Your task to perform on an android device: see creations saved in the google photos Image 0: 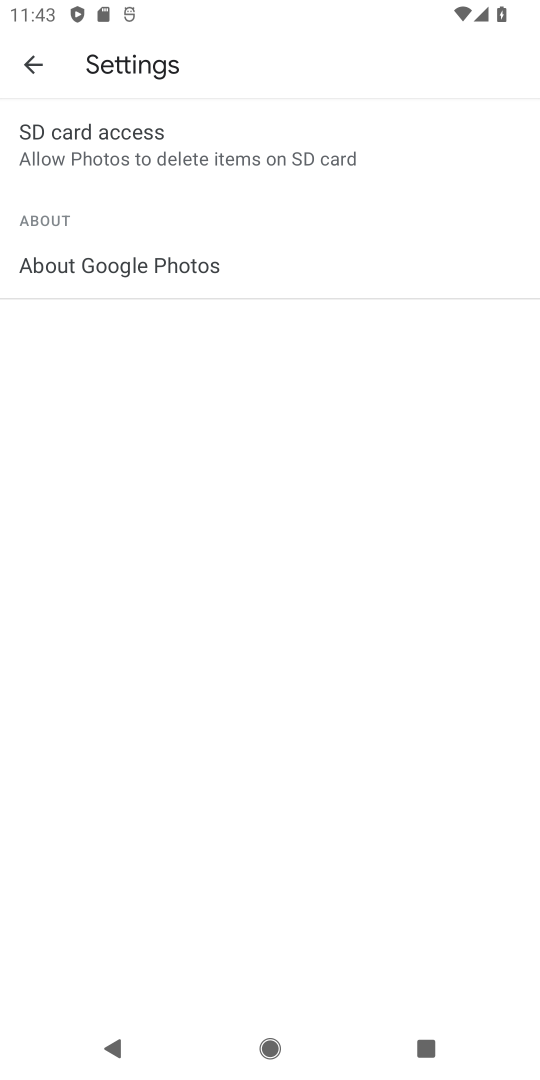
Step 0: press home button
Your task to perform on an android device: see creations saved in the google photos Image 1: 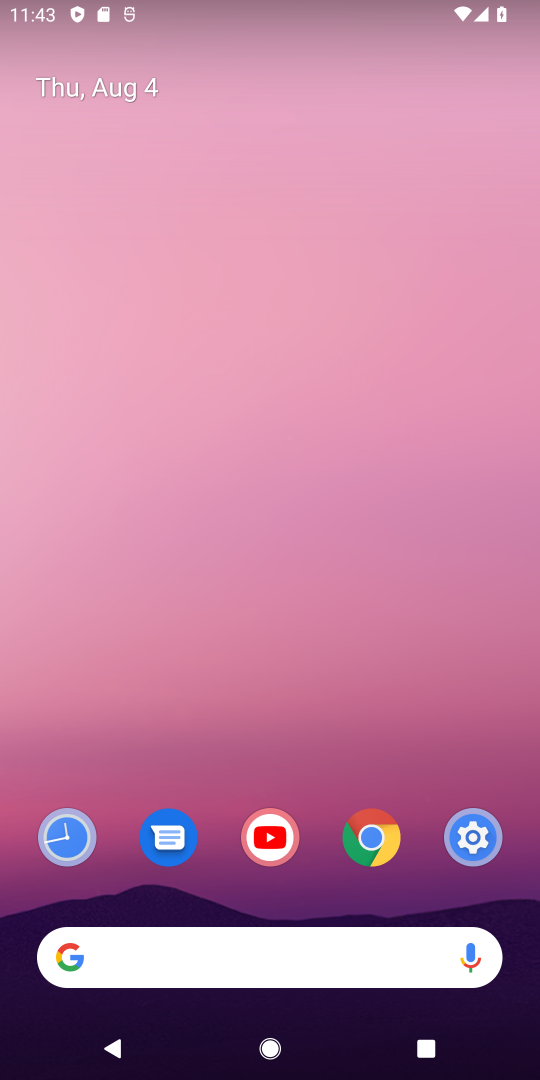
Step 1: drag from (288, 733) to (296, 26)
Your task to perform on an android device: see creations saved in the google photos Image 2: 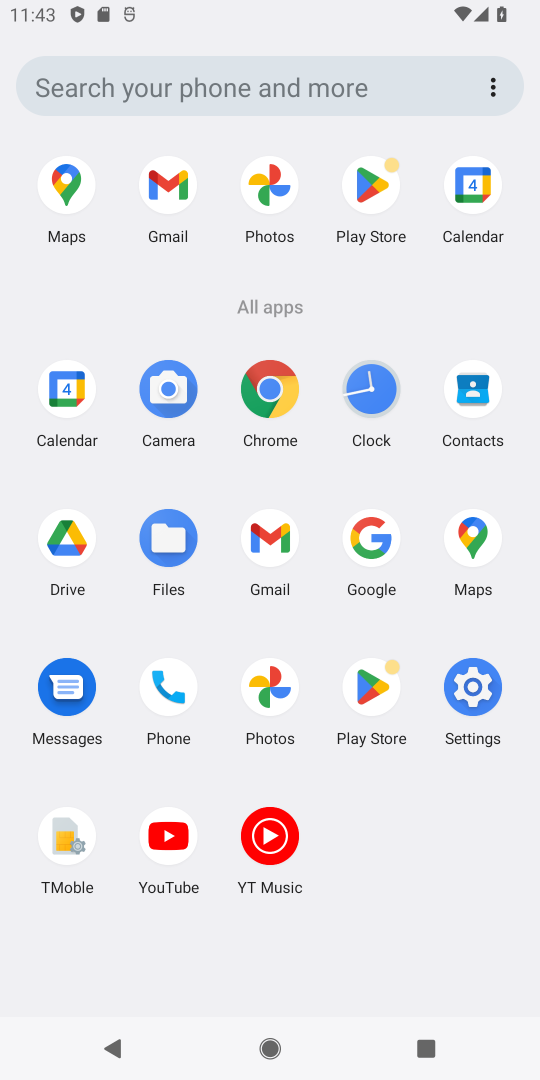
Step 2: click (267, 684)
Your task to perform on an android device: see creations saved in the google photos Image 3: 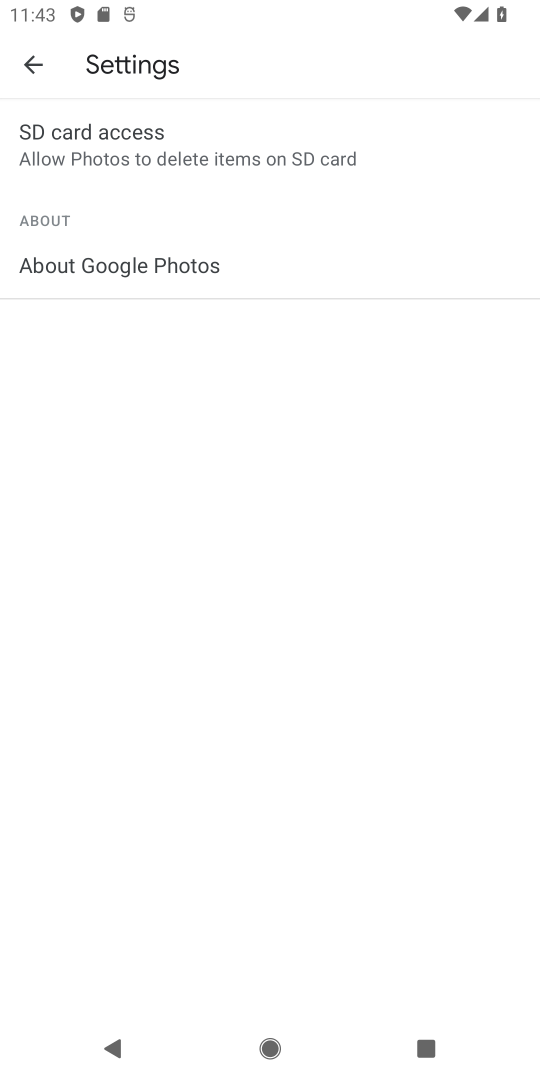
Step 3: click (40, 67)
Your task to perform on an android device: see creations saved in the google photos Image 4: 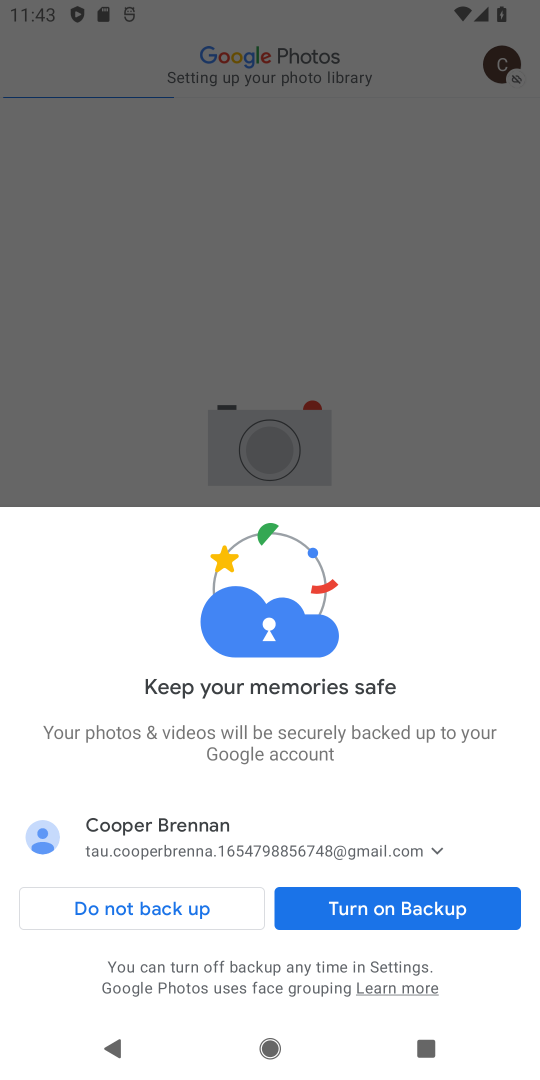
Step 4: click (390, 903)
Your task to perform on an android device: see creations saved in the google photos Image 5: 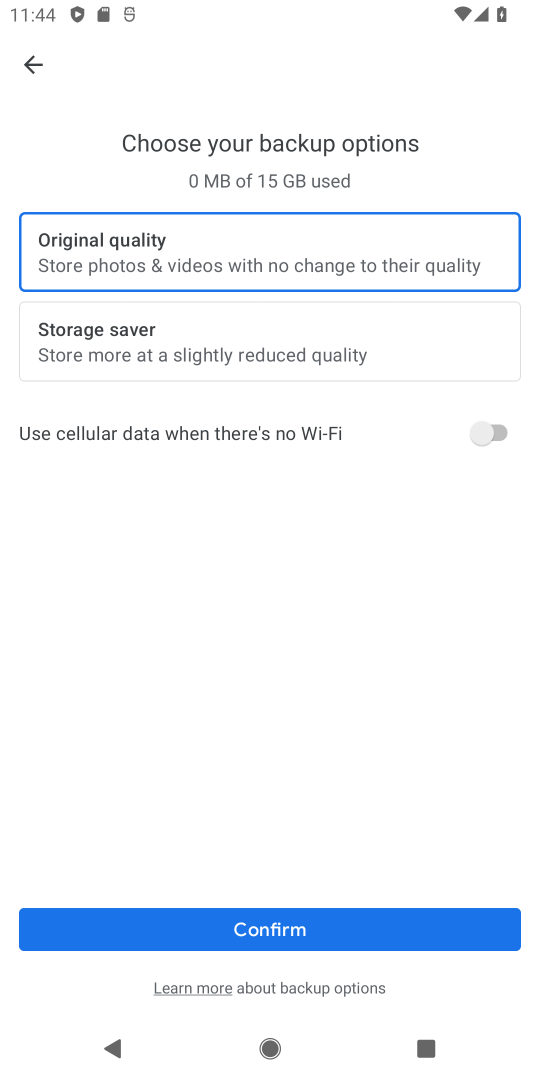
Step 5: click (404, 932)
Your task to perform on an android device: see creations saved in the google photos Image 6: 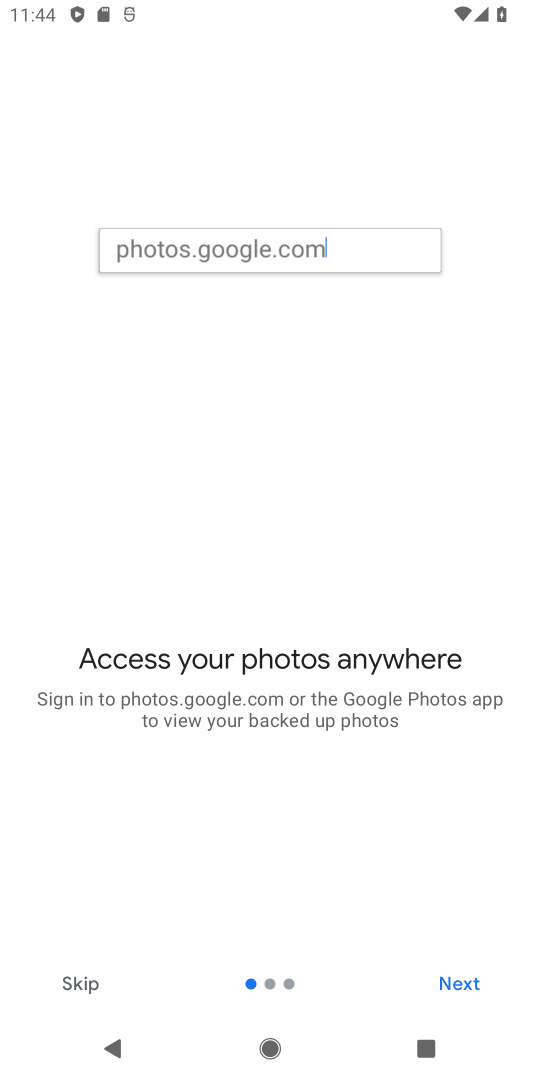
Step 6: click (78, 976)
Your task to perform on an android device: see creations saved in the google photos Image 7: 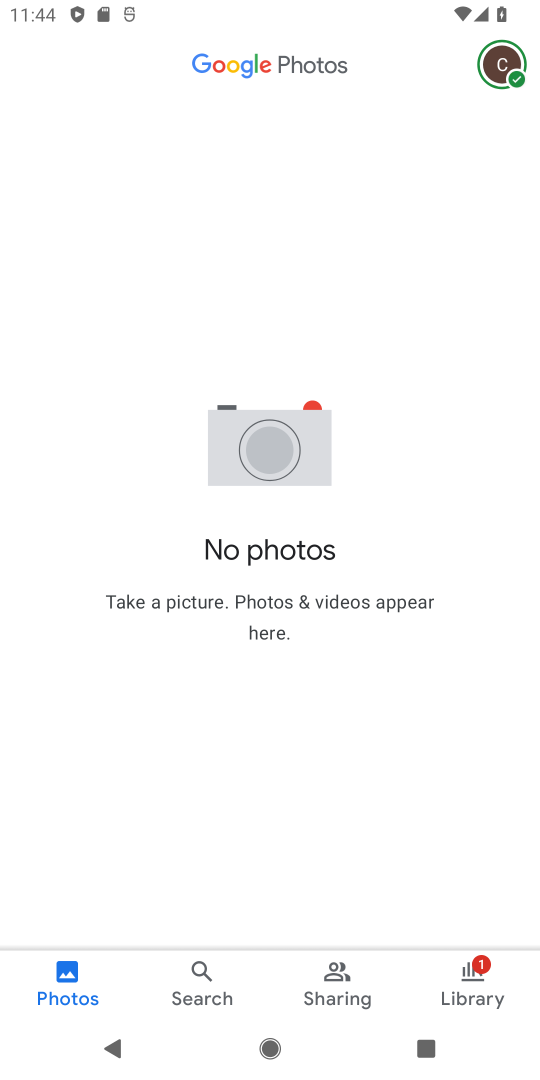
Step 7: click (230, 992)
Your task to perform on an android device: see creations saved in the google photos Image 8: 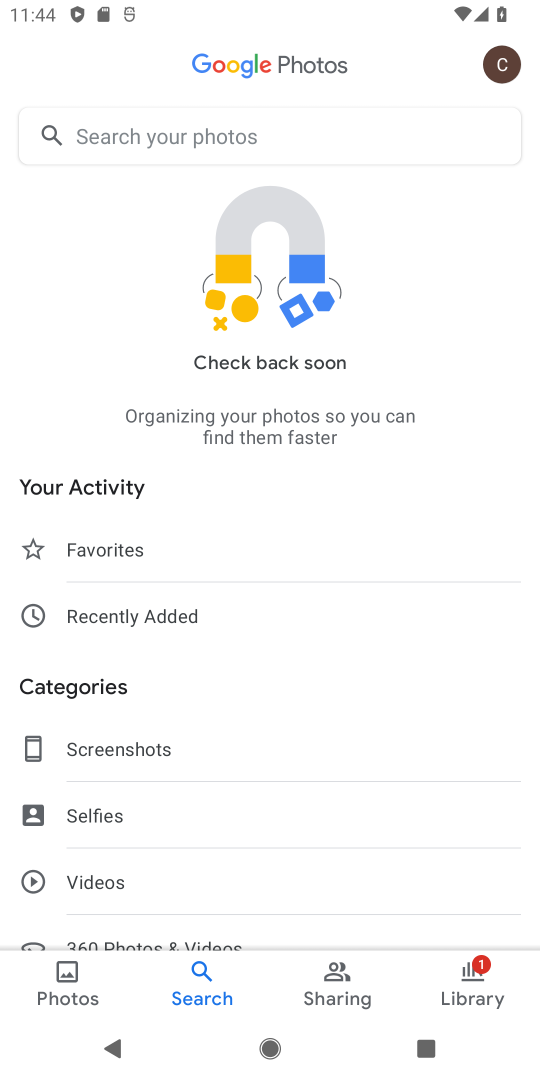
Step 8: drag from (232, 846) to (218, 489)
Your task to perform on an android device: see creations saved in the google photos Image 9: 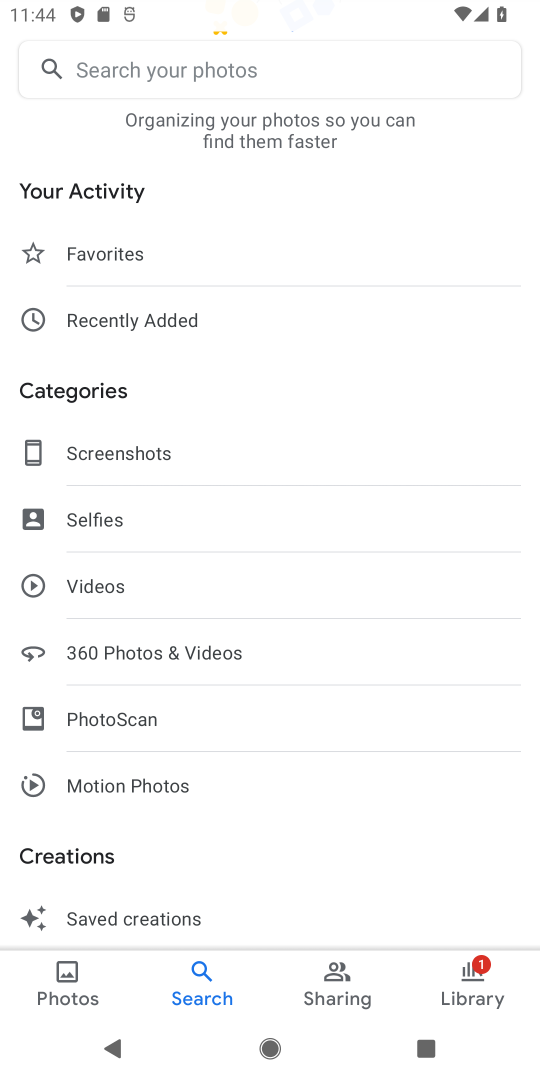
Step 9: click (137, 912)
Your task to perform on an android device: see creations saved in the google photos Image 10: 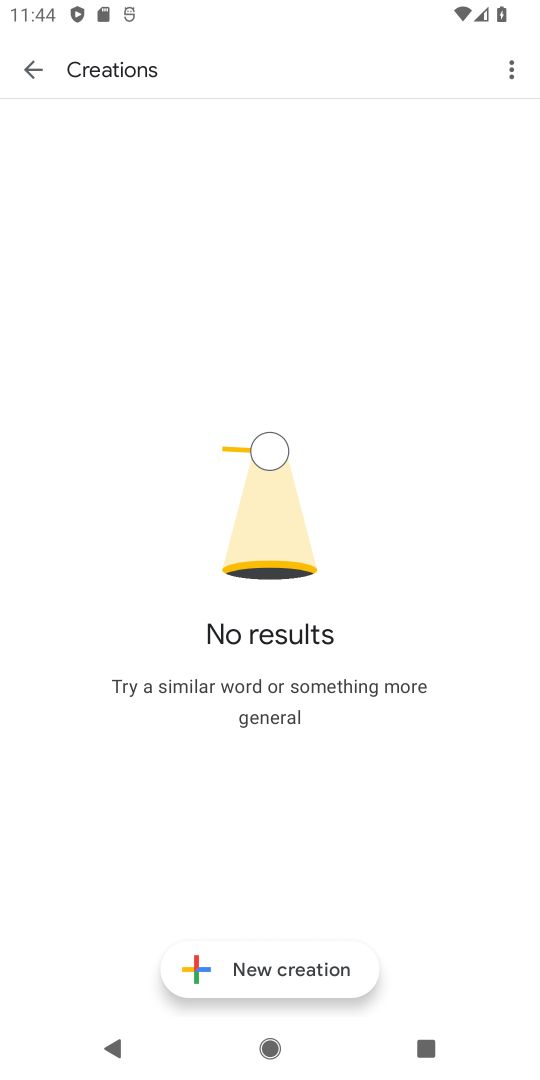
Step 10: task complete